Your task to perform on an android device: toggle wifi Image 0: 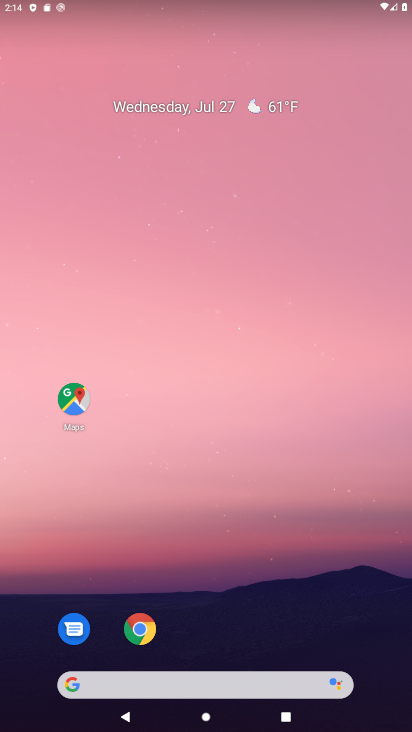
Step 0: drag from (209, 683) to (152, 190)
Your task to perform on an android device: toggle wifi Image 1: 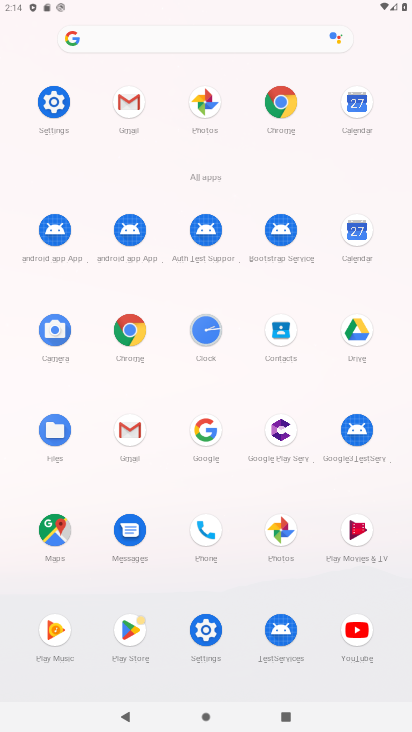
Step 1: click (55, 103)
Your task to perform on an android device: toggle wifi Image 2: 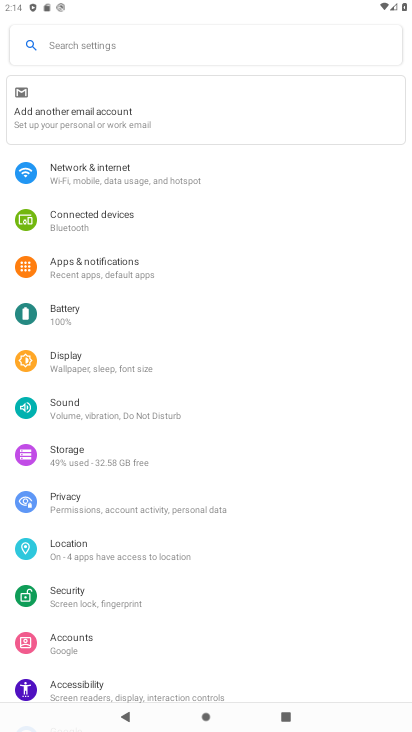
Step 2: click (148, 179)
Your task to perform on an android device: toggle wifi Image 3: 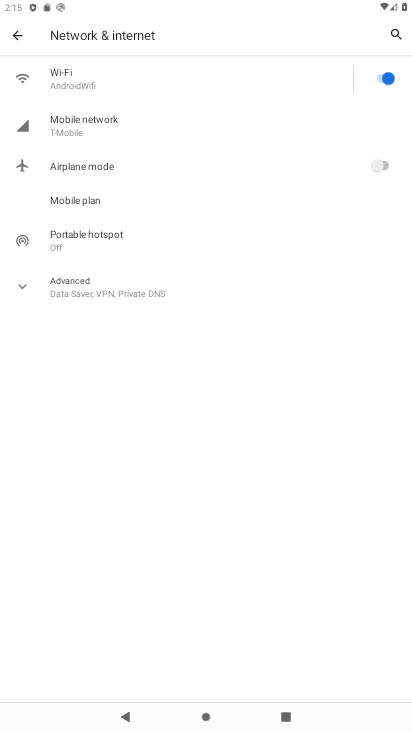
Step 3: click (384, 79)
Your task to perform on an android device: toggle wifi Image 4: 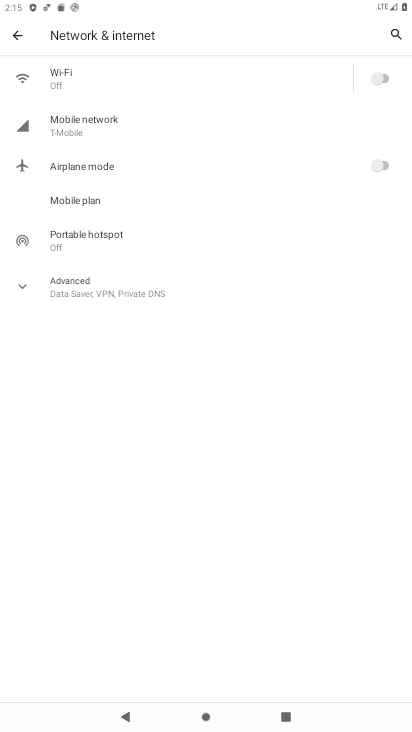
Step 4: task complete